Your task to perform on an android device: search for starred emails in the gmail app Image 0: 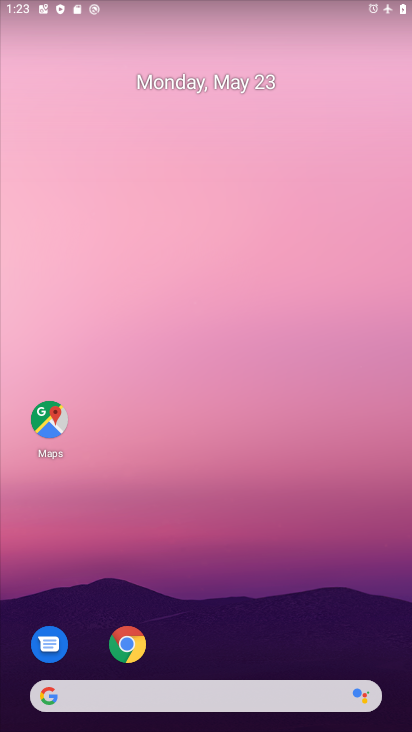
Step 0: drag from (323, 630) to (286, 52)
Your task to perform on an android device: search for starred emails in the gmail app Image 1: 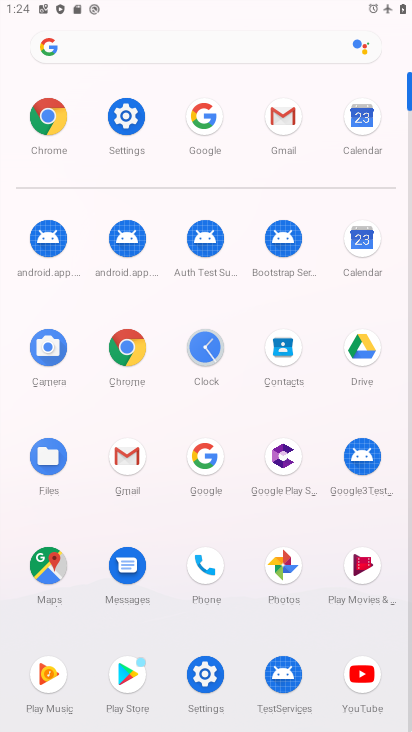
Step 1: click (125, 464)
Your task to perform on an android device: search for starred emails in the gmail app Image 2: 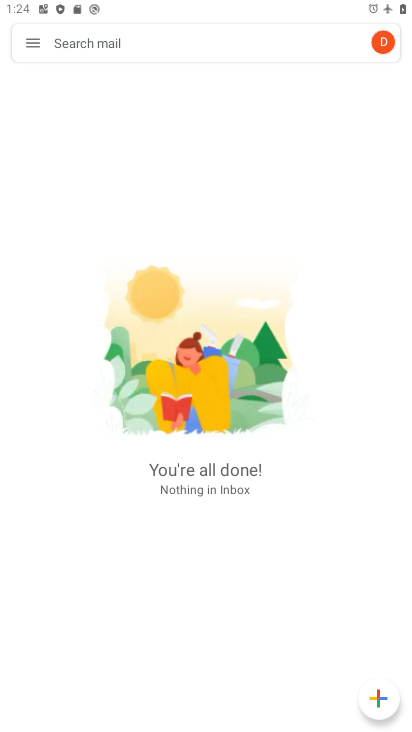
Step 2: click (44, 39)
Your task to perform on an android device: search for starred emails in the gmail app Image 3: 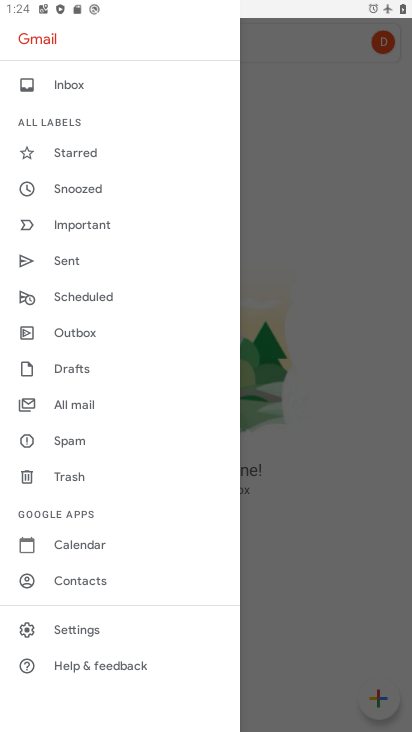
Step 3: click (74, 147)
Your task to perform on an android device: search for starred emails in the gmail app Image 4: 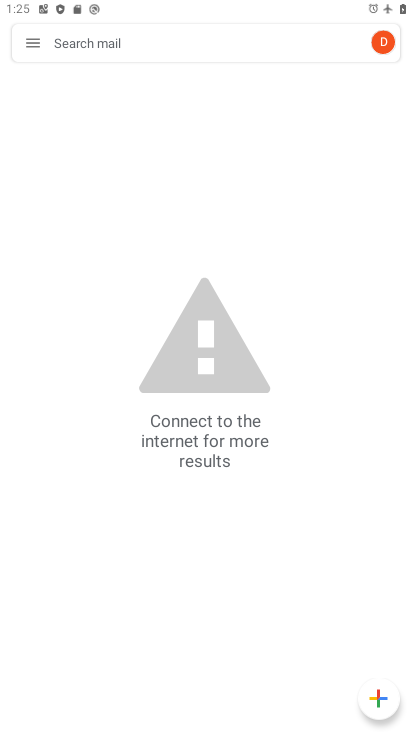
Step 4: task complete